Your task to perform on an android device: Clear the shopping cart on newegg. Search for "asus rog" on newegg, select the first entry, add it to the cart, then select checkout. Image 0: 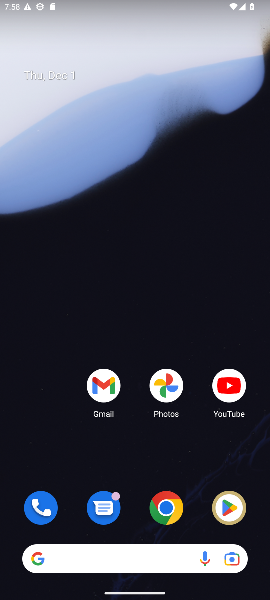
Step 0: click (163, 512)
Your task to perform on an android device: Clear the shopping cart on newegg. Search for "asus rog" on newegg, select the first entry, add it to the cart, then select checkout. Image 1: 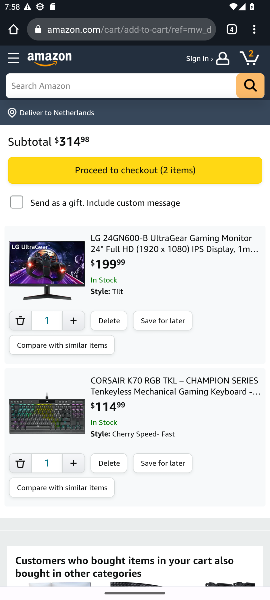
Step 1: click (231, 27)
Your task to perform on an android device: Clear the shopping cart on newegg. Search for "asus rog" on newegg, select the first entry, add it to the cart, then select checkout. Image 2: 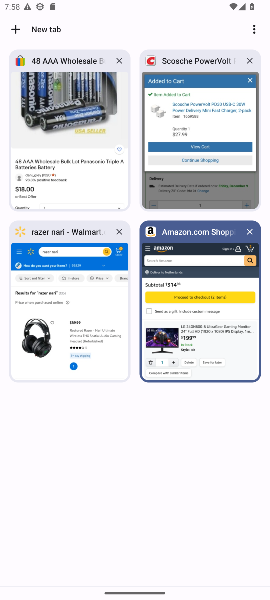
Step 2: click (37, 30)
Your task to perform on an android device: Clear the shopping cart on newegg. Search for "asus rog" on newegg, select the first entry, add it to the cart, then select checkout. Image 3: 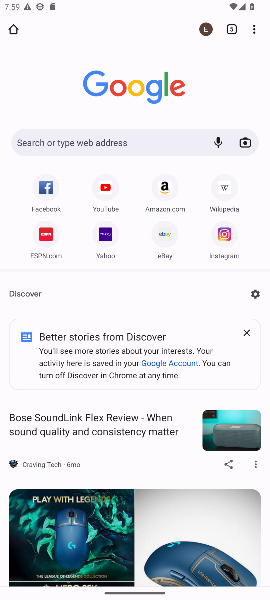
Step 3: click (79, 141)
Your task to perform on an android device: Clear the shopping cart on newegg. Search for "asus rog" on newegg, select the first entry, add it to the cart, then select checkout. Image 4: 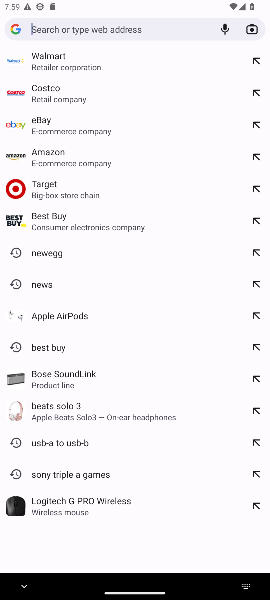
Step 4: click (38, 255)
Your task to perform on an android device: Clear the shopping cart on newegg. Search for "asus rog" on newegg, select the first entry, add it to the cart, then select checkout. Image 5: 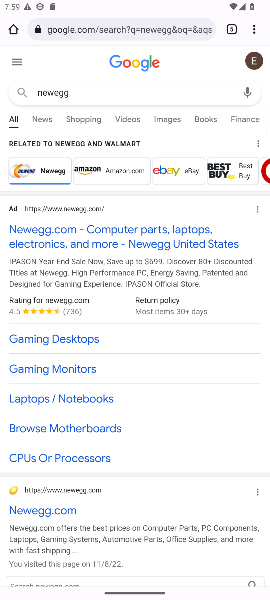
Step 5: click (60, 235)
Your task to perform on an android device: Clear the shopping cart on newegg. Search for "asus rog" on newegg, select the first entry, add it to the cart, then select checkout. Image 6: 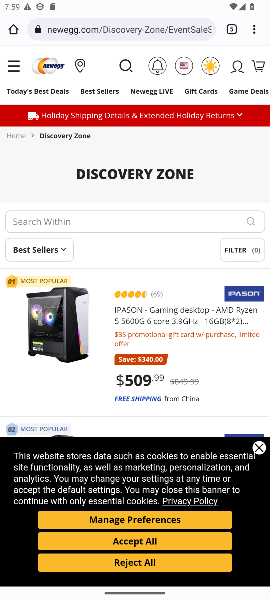
Step 6: click (258, 61)
Your task to perform on an android device: Clear the shopping cart on newegg. Search for "asus rog" on newegg, select the first entry, add it to the cart, then select checkout. Image 7: 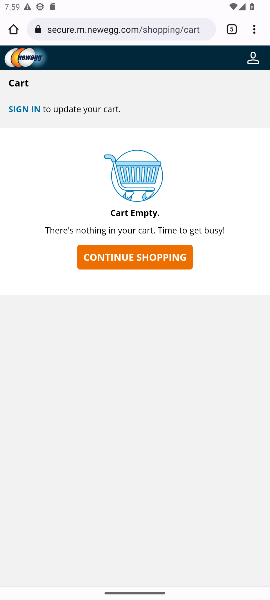
Step 7: press back button
Your task to perform on an android device: Clear the shopping cart on newegg. Search for "asus rog" on newegg, select the first entry, add it to the cart, then select checkout. Image 8: 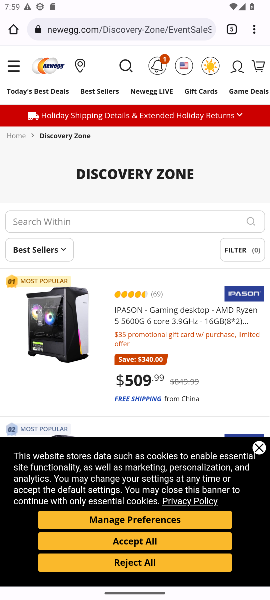
Step 8: click (125, 69)
Your task to perform on an android device: Clear the shopping cart on newegg. Search for "asus rog" on newegg, select the first entry, add it to the cart, then select checkout. Image 9: 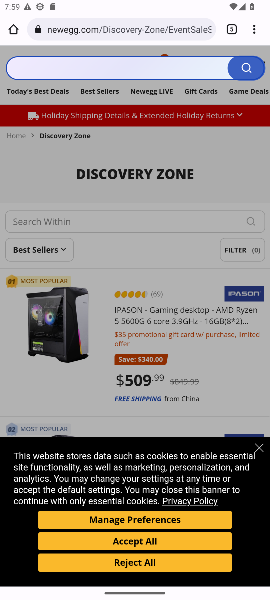
Step 9: click (90, 62)
Your task to perform on an android device: Clear the shopping cart on newegg. Search for "asus rog" on newegg, select the first entry, add it to the cart, then select checkout. Image 10: 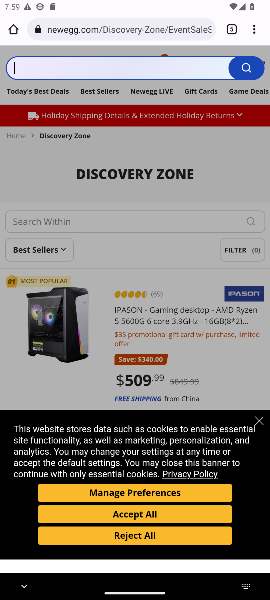
Step 10: type "asus rog"
Your task to perform on an android device: Clear the shopping cart on newegg. Search for "asus rog" on newegg, select the first entry, add it to the cart, then select checkout. Image 11: 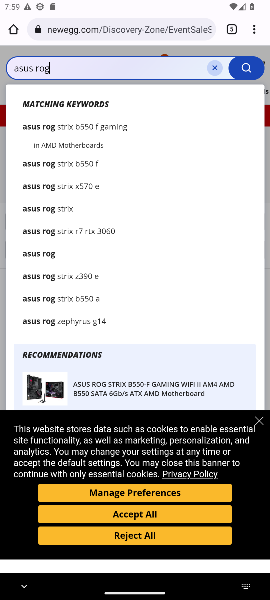
Step 11: click (247, 73)
Your task to perform on an android device: Clear the shopping cart on newegg. Search for "asus rog" on newegg, select the first entry, add it to the cart, then select checkout. Image 12: 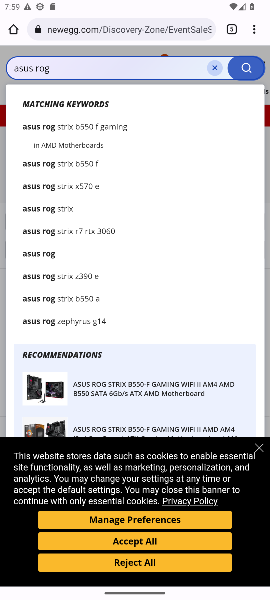
Step 12: click (247, 67)
Your task to perform on an android device: Clear the shopping cart on newegg. Search for "asus rog" on newegg, select the first entry, add it to the cart, then select checkout. Image 13: 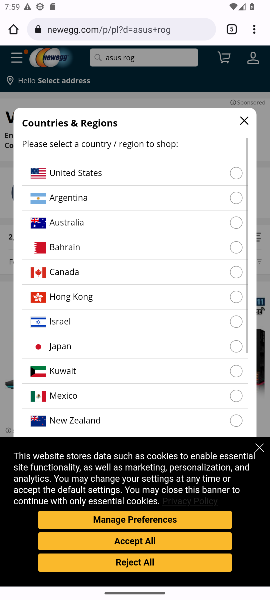
Step 13: click (234, 172)
Your task to perform on an android device: Clear the shopping cart on newegg. Search for "asus rog" on newegg, select the first entry, add it to the cart, then select checkout. Image 14: 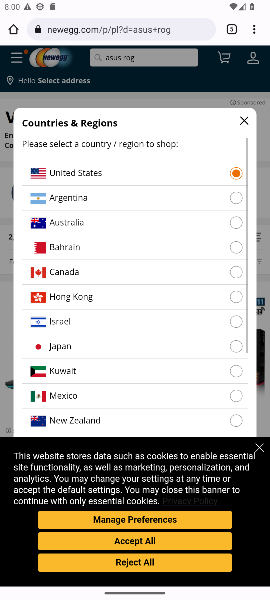
Step 14: click (256, 449)
Your task to perform on an android device: Clear the shopping cart on newegg. Search for "asus rog" on newegg, select the first entry, add it to the cart, then select checkout. Image 15: 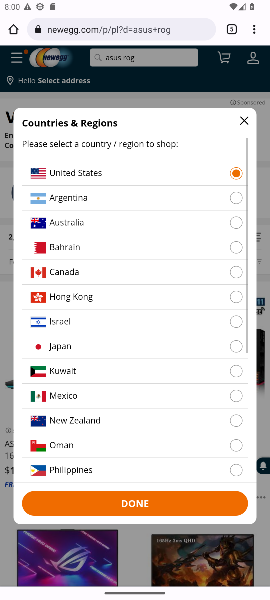
Step 15: click (178, 506)
Your task to perform on an android device: Clear the shopping cart on newegg. Search for "asus rog" on newegg, select the first entry, add it to the cart, then select checkout. Image 16: 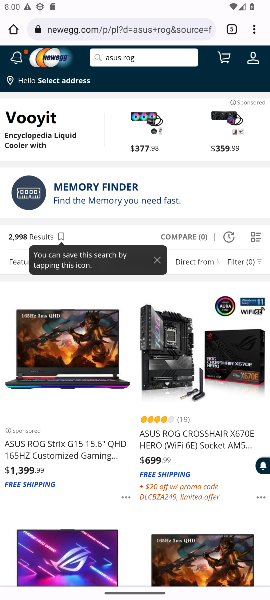
Step 16: click (50, 440)
Your task to perform on an android device: Clear the shopping cart on newegg. Search for "asus rog" on newegg, select the first entry, add it to the cart, then select checkout. Image 17: 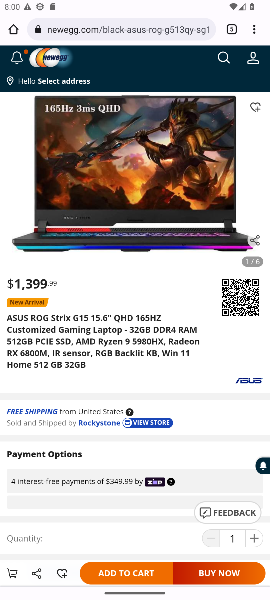
Step 17: click (127, 572)
Your task to perform on an android device: Clear the shopping cart on newegg. Search for "asus rog" on newegg, select the first entry, add it to the cart, then select checkout. Image 18: 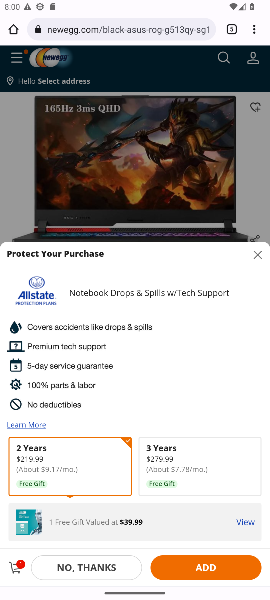
Step 18: click (16, 565)
Your task to perform on an android device: Clear the shopping cart on newegg. Search for "asus rog" on newegg, select the first entry, add it to the cart, then select checkout. Image 19: 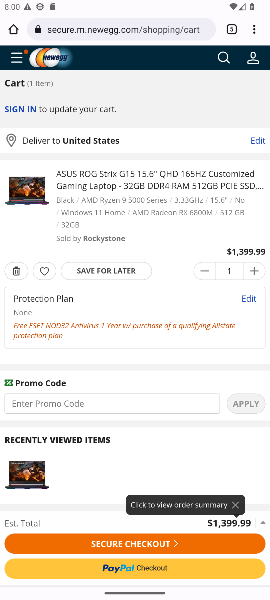
Step 19: click (105, 546)
Your task to perform on an android device: Clear the shopping cart on newegg. Search for "asus rog" on newegg, select the first entry, add it to the cart, then select checkout. Image 20: 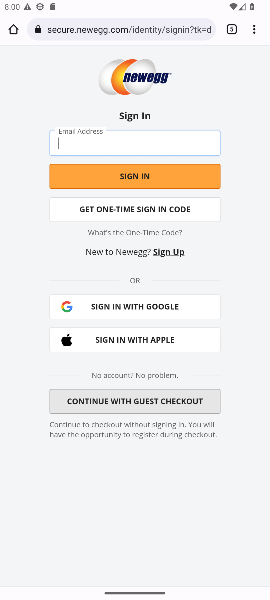
Step 20: task complete